Your task to perform on an android device: Open Chrome and go to settings Image 0: 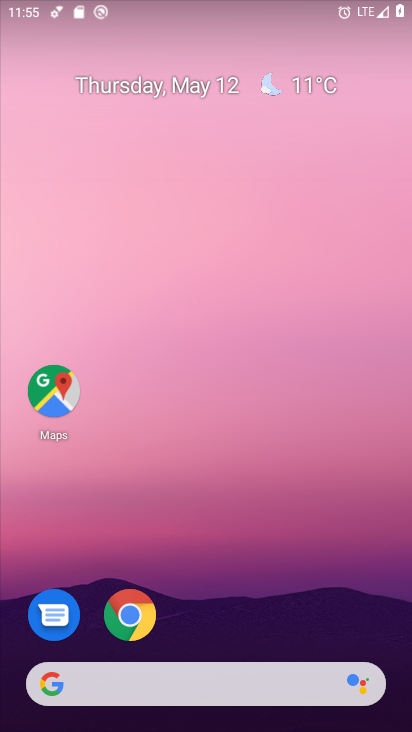
Step 0: click (129, 616)
Your task to perform on an android device: Open Chrome and go to settings Image 1: 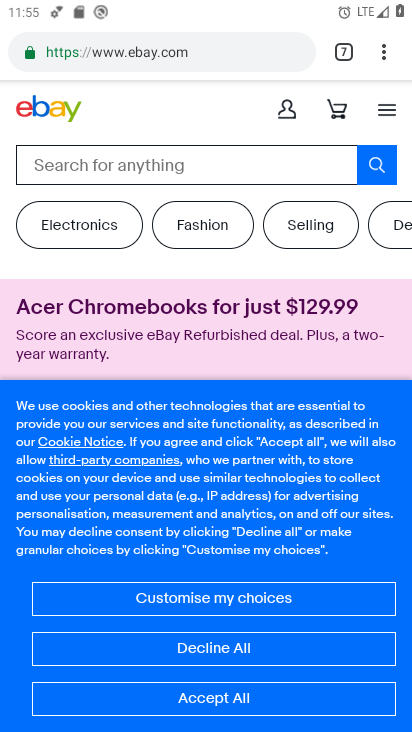
Step 1: click (382, 59)
Your task to perform on an android device: Open Chrome and go to settings Image 2: 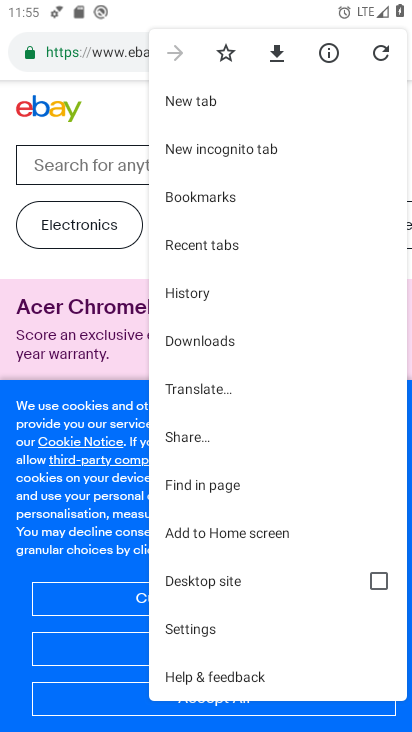
Step 2: click (229, 633)
Your task to perform on an android device: Open Chrome and go to settings Image 3: 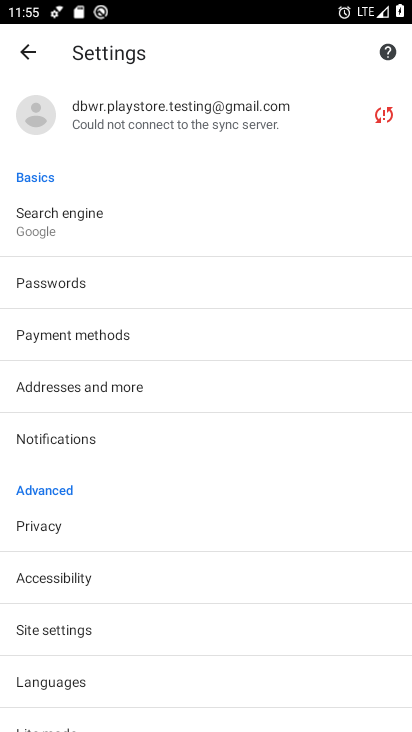
Step 3: task complete